Your task to perform on an android device: uninstall "Reddit" Image 0: 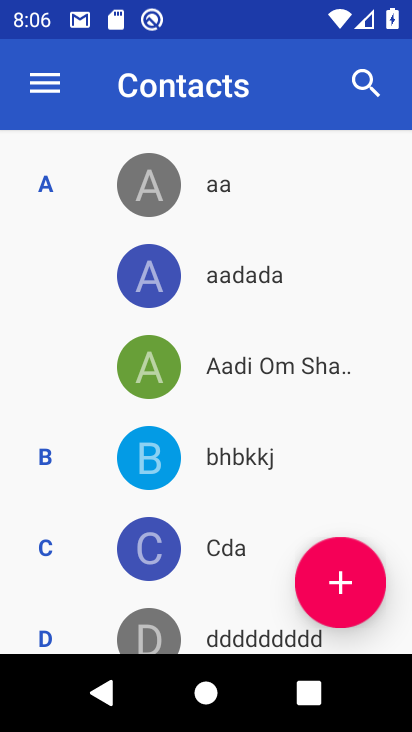
Step 0: press back button
Your task to perform on an android device: uninstall "Reddit" Image 1: 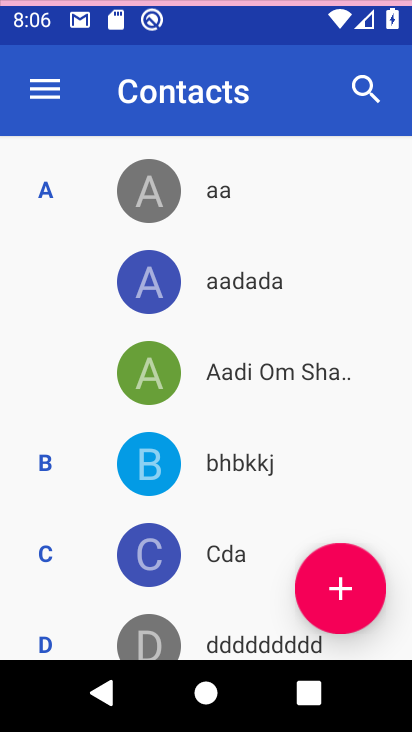
Step 1: press home button
Your task to perform on an android device: uninstall "Reddit" Image 2: 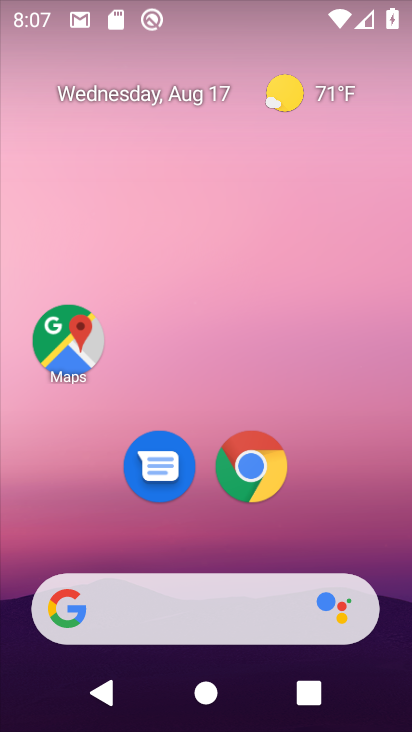
Step 2: drag from (188, 541) to (186, 47)
Your task to perform on an android device: uninstall "Reddit" Image 3: 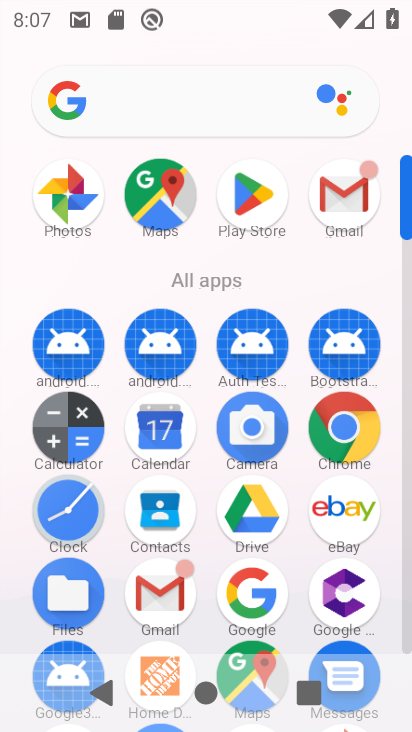
Step 3: click (264, 201)
Your task to perform on an android device: uninstall "Reddit" Image 4: 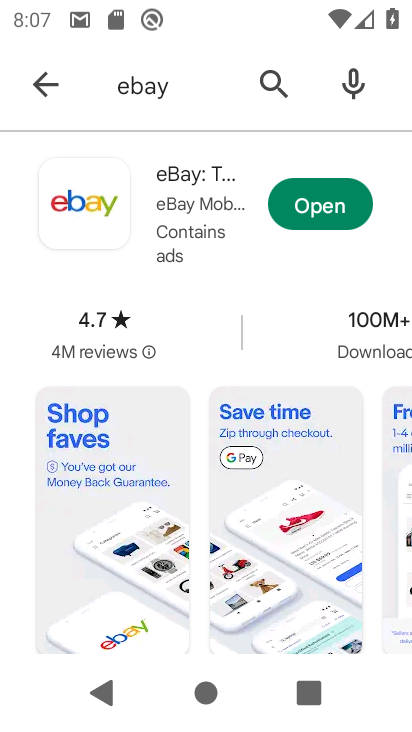
Step 4: click (163, 88)
Your task to perform on an android device: uninstall "Reddit" Image 5: 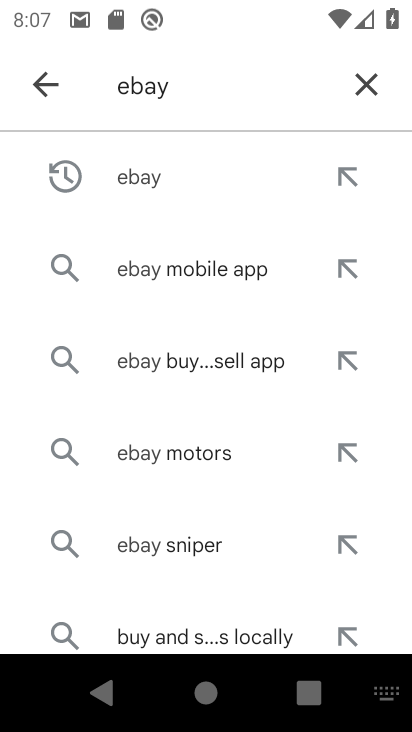
Step 5: click (360, 78)
Your task to perform on an android device: uninstall "Reddit" Image 6: 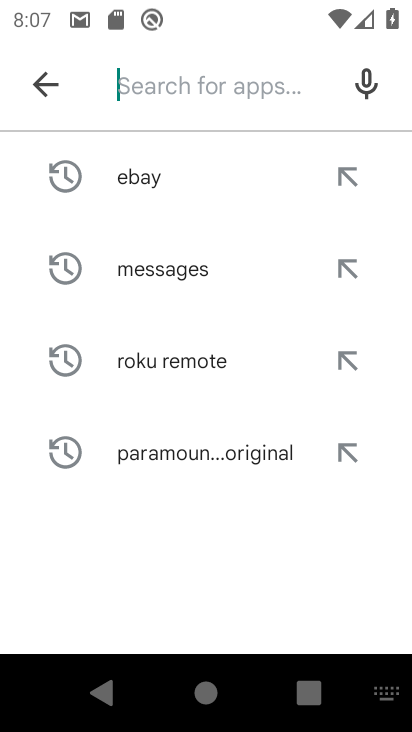
Step 6: type "reddit"
Your task to perform on an android device: uninstall "Reddit" Image 7: 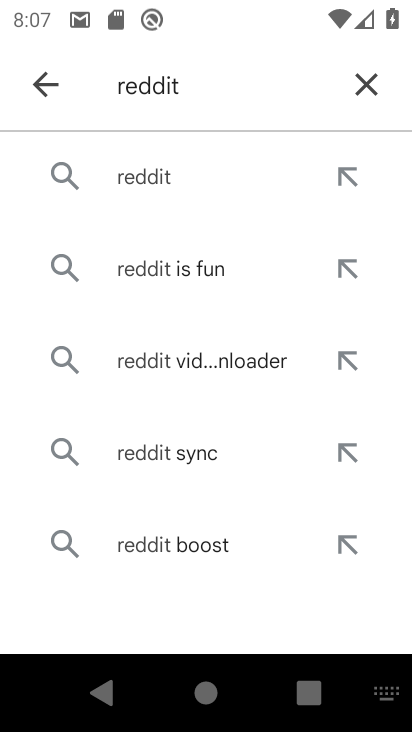
Step 7: click (100, 172)
Your task to perform on an android device: uninstall "Reddit" Image 8: 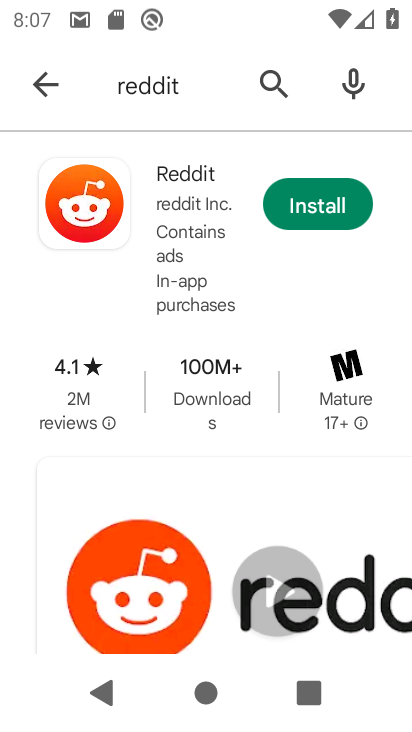
Step 8: task complete